Your task to perform on an android device: Go to Amazon Image 0: 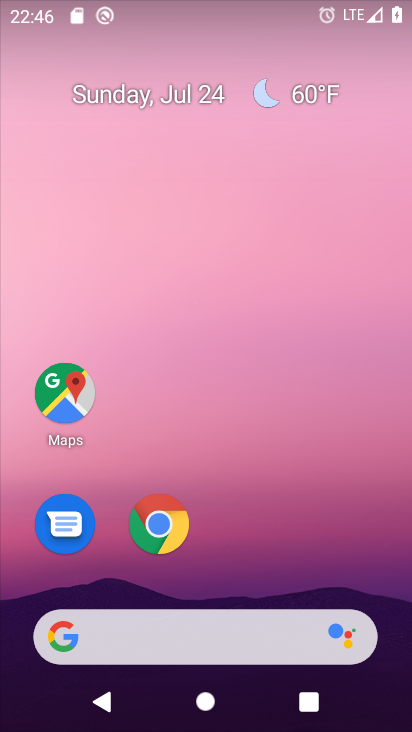
Step 0: click (165, 537)
Your task to perform on an android device: Go to Amazon Image 1: 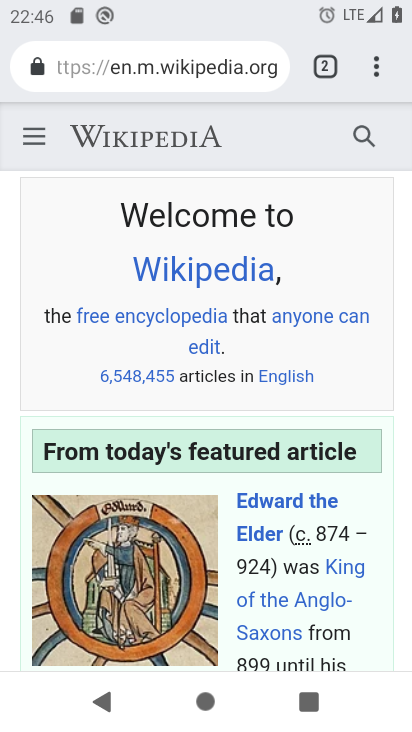
Step 1: click (380, 68)
Your task to perform on an android device: Go to Amazon Image 2: 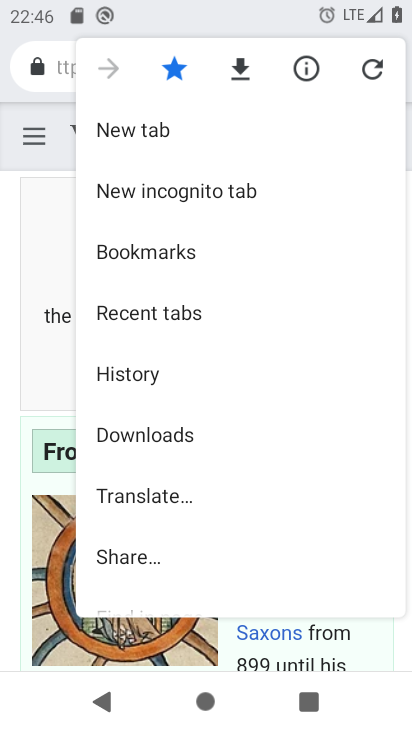
Step 2: click (252, 124)
Your task to perform on an android device: Go to Amazon Image 3: 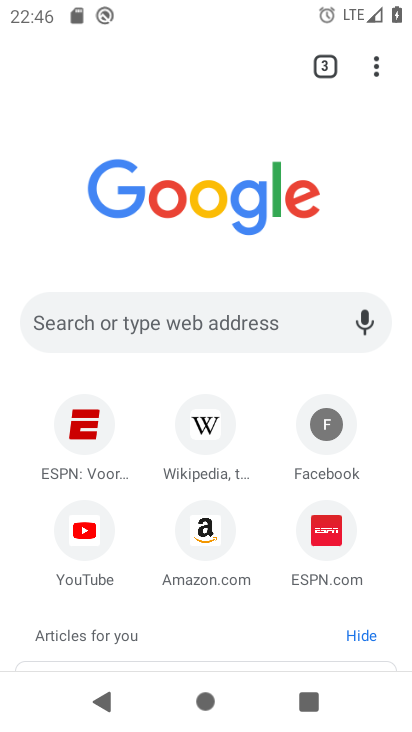
Step 3: click (214, 526)
Your task to perform on an android device: Go to Amazon Image 4: 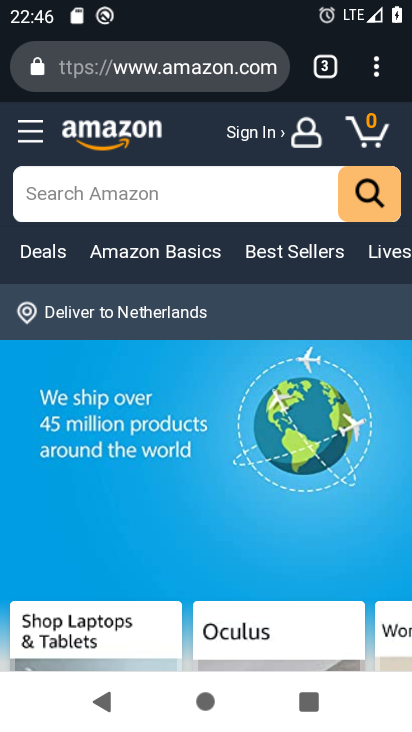
Step 4: task complete